Your task to perform on an android device: turn off notifications settings in the gmail app Image 0: 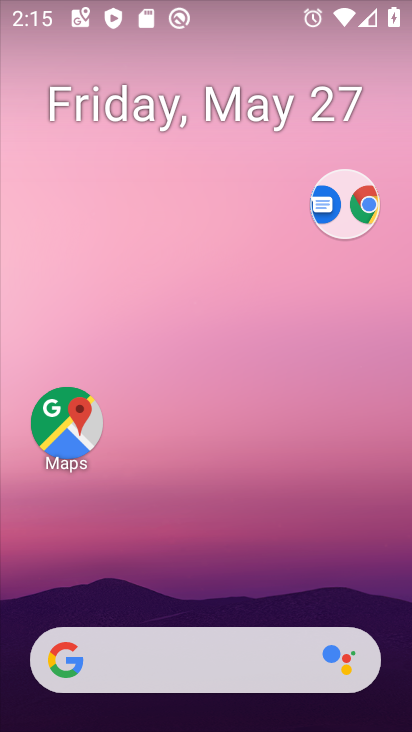
Step 0: drag from (143, 530) to (206, 82)
Your task to perform on an android device: turn off notifications settings in the gmail app Image 1: 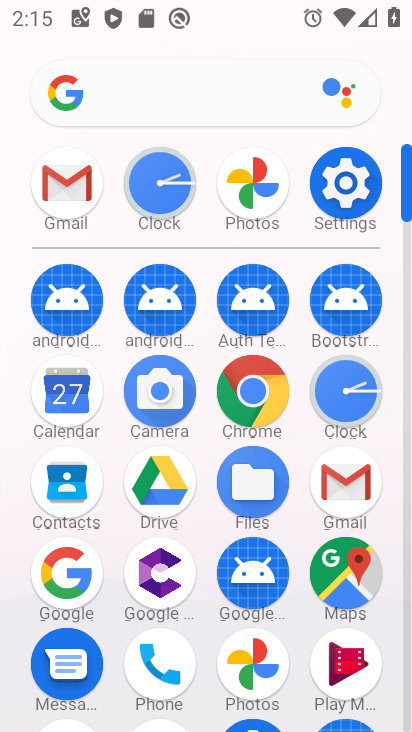
Step 1: click (352, 494)
Your task to perform on an android device: turn off notifications settings in the gmail app Image 2: 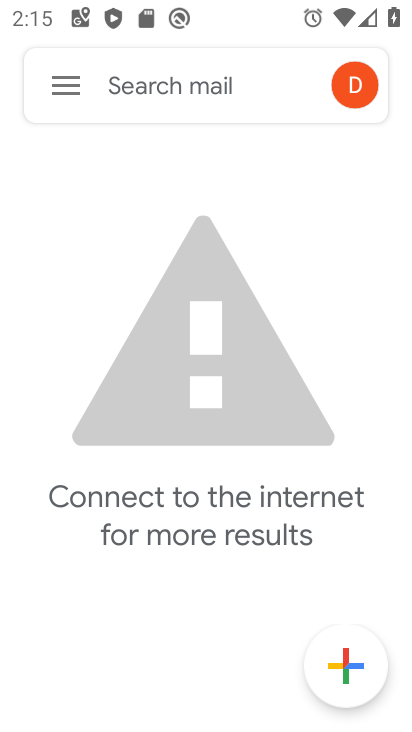
Step 2: click (67, 96)
Your task to perform on an android device: turn off notifications settings in the gmail app Image 3: 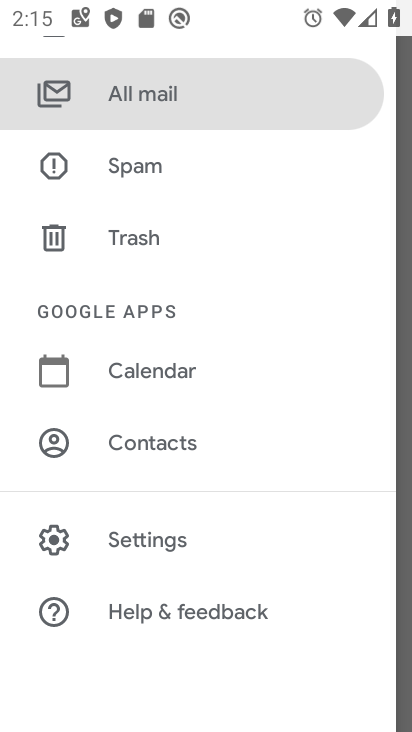
Step 3: click (141, 524)
Your task to perform on an android device: turn off notifications settings in the gmail app Image 4: 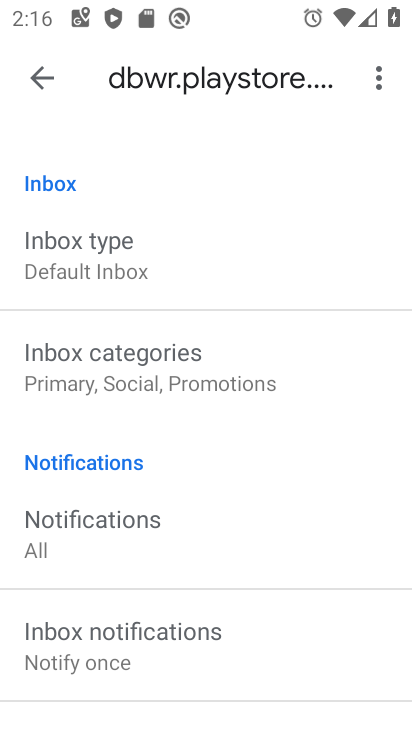
Step 4: click (141, 536)
Your task to perform on an android device: turn off notifications settings in the gmail app Image 5: 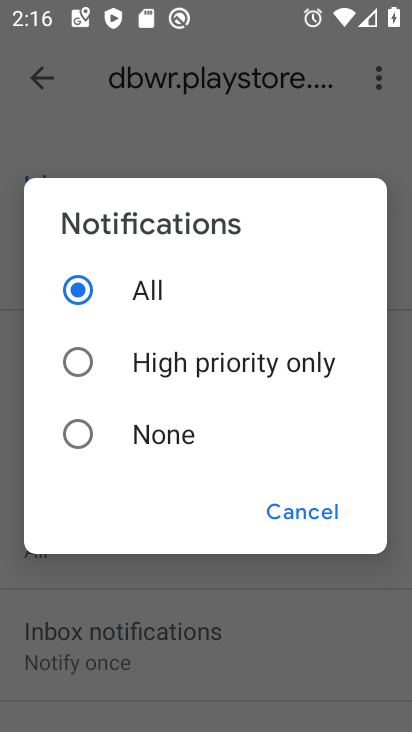
Step 5: click (257, 104)
Your task to perform on an android device: turn off notifications settings in the gmail app Image 6: 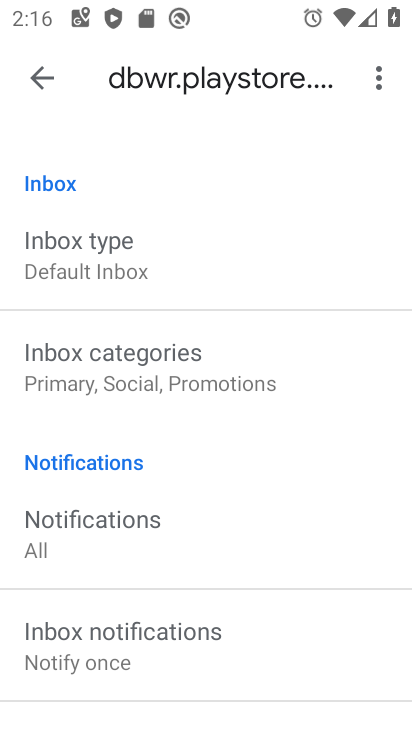
Step 6: click (26, 87)
Your task to perform on an android device: turn off notifications settings in the gmail app Image 7: 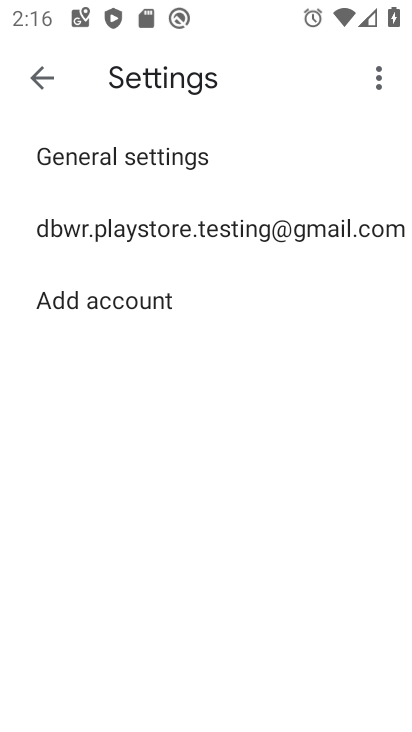
Step 7: click (121, 163)
Your task to perform on an android device: turn off notifications settings in the gmail app Image 8: 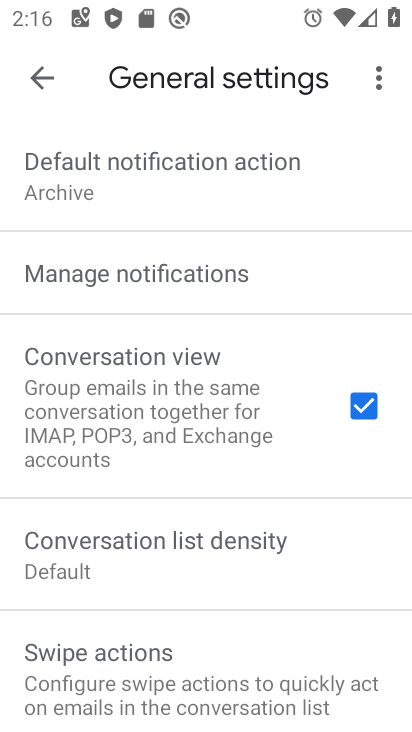
Step 8: click (140, 275)
Your task to perform on an android device: turn off notifications settings in the gmail app Image 9: 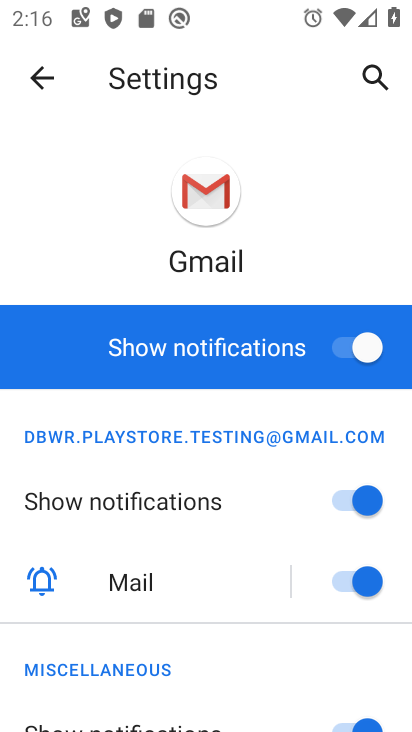
Step 9: click (269, 333)
Your task to perform on an android device: turn off notifications settings in the gmail app Image 10: 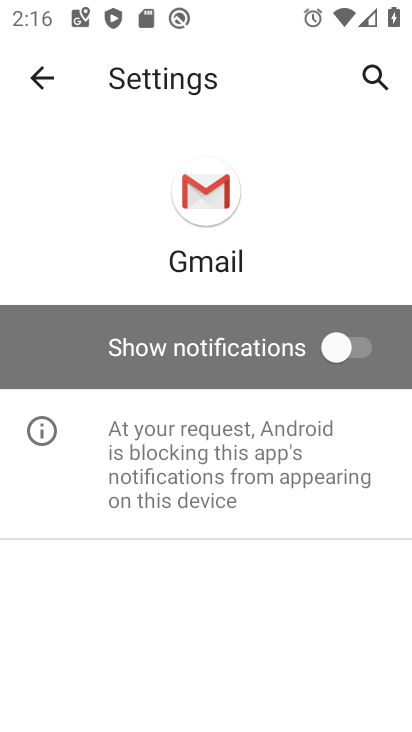
Step 10: task complete